Your task to perform on an android device: allow notifications from all sites in the chrome app Image 0: 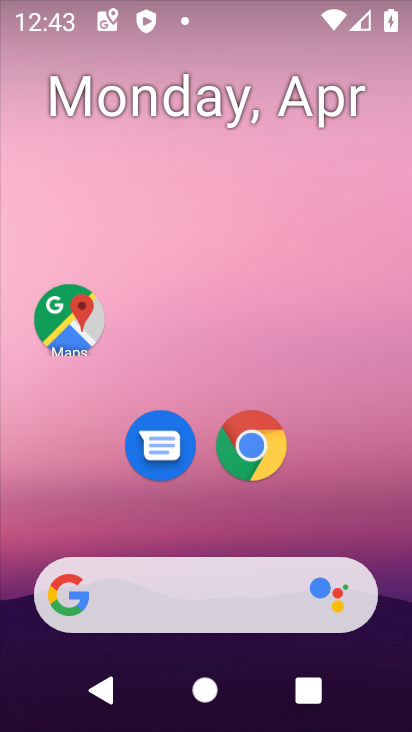
Step 0: drag from (371, 510) to (380, 158)
Your task to perform on an android device: allow notifications from all sites in the chrome app Image 1: 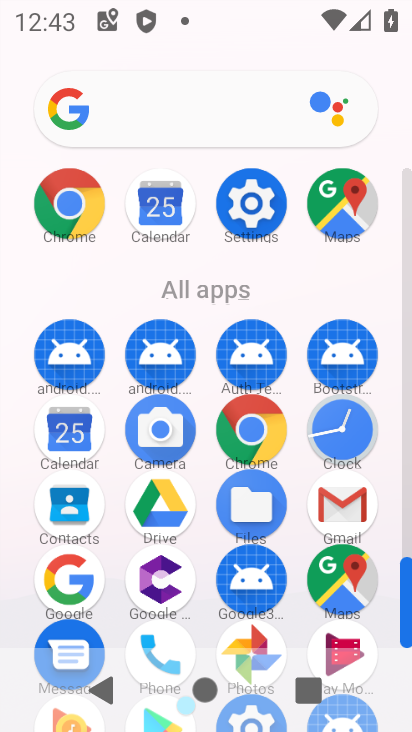
Step 1: click (265, 432)
Your task to perform on an android device: allow notifications from all sites in the chrome app Image 2: 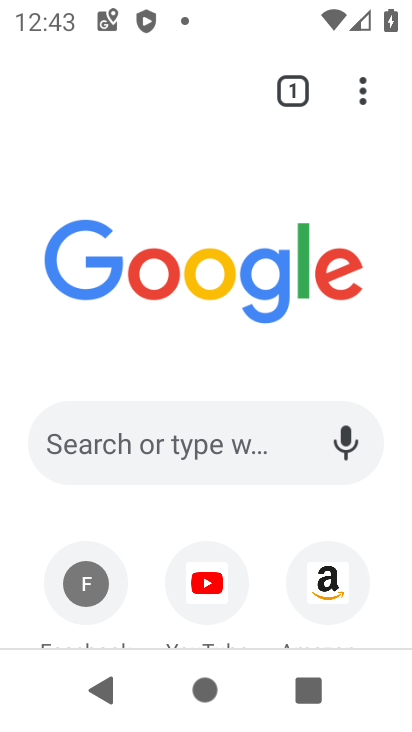
Step 2: click (361, 97)
Your task to perform on an android device: allow notifications from all sites in the chrome app Image 3: 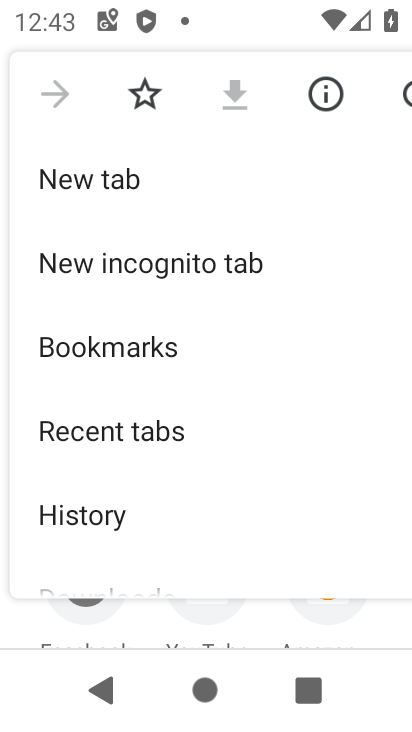
Step 3: drag from (322, 472) to (324, 298)
Your task to perform on an android device: allow notifications from all sites in the chrome app Image 4: 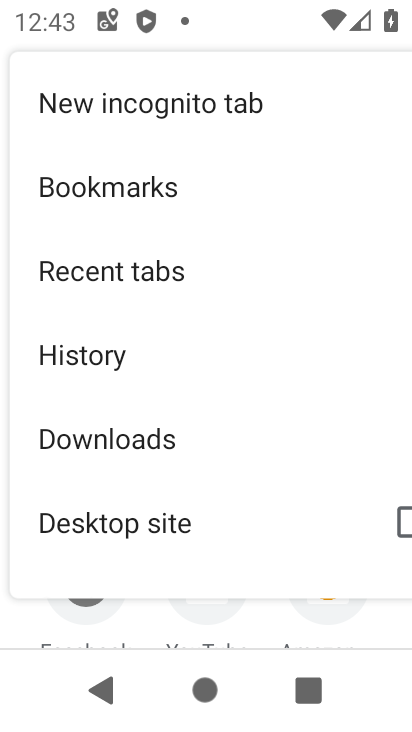
Step 4: drag from (300, 517) to (297, 324)
Your task to perform on an android device: allow notifications from all sites in the chrome app Image 5: 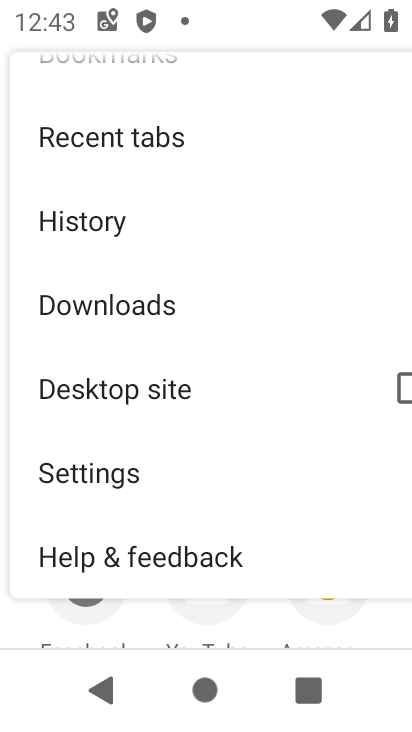
Step 5: drag from (303, 532) to (290, 330)
Your task to perform on an android device: allow notifications from all sites in the chrome app Image 6: 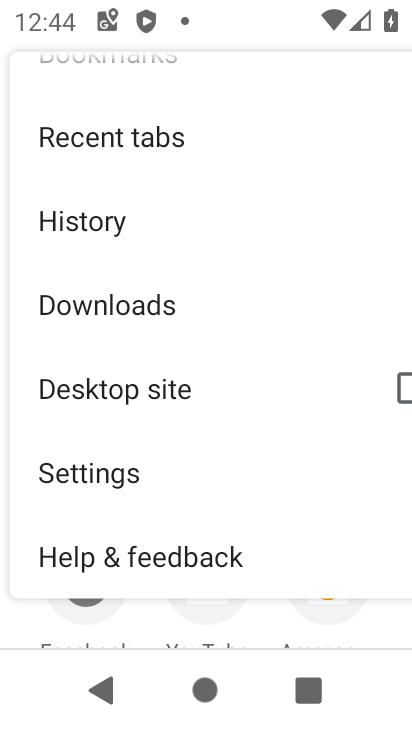
Step 6: click (123, 480)
Your task to perform on an android device: allow notifications from all sites in the chrome app Image 7: 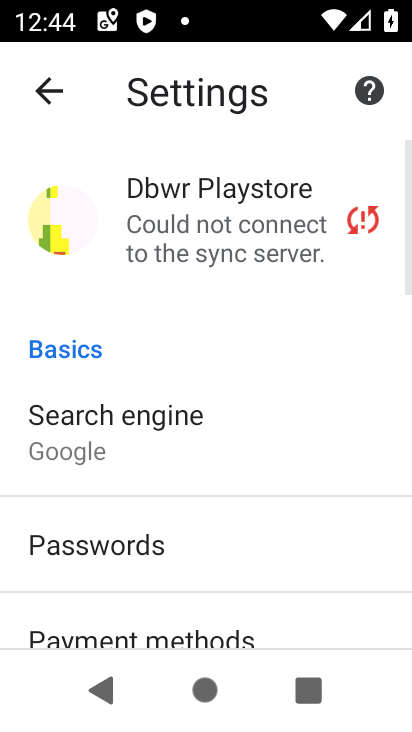
Step 7: drag from (291, 540) to (292, 370)
Your task to perform on an android device: allow notifications from all sites in the chrome app Image 8: 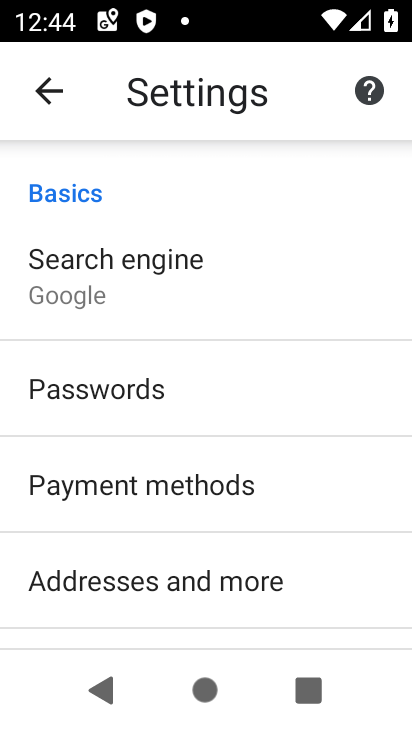
Step 8: drag from (340, 593) to (337, 439)
Your task to perform on an android device: allow notifications from all sites in the chrome app Image 9: 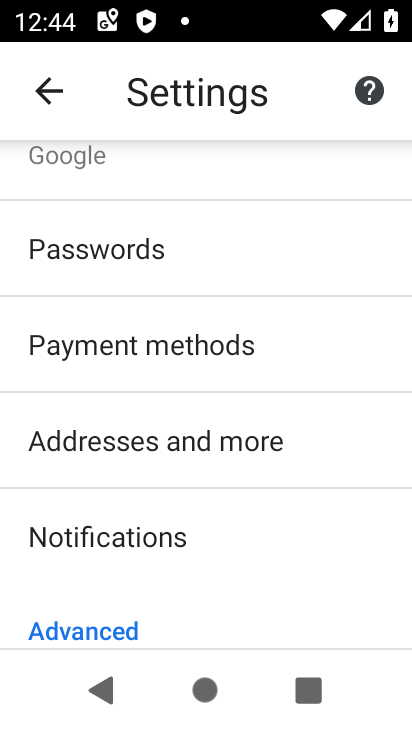
Step 9: drag from (351, 587) to (360, 388)
Your task to perform on an android device: allow notifications from all sites in the chrome app Image 10: 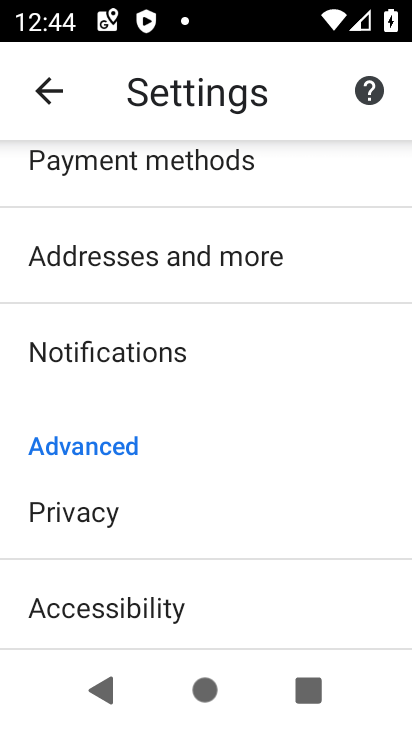
Step 10: drag from (320, 608) to (321, 405)
Your task to perform on an android device: allow notifications from all sites in the chrome app Image 11: 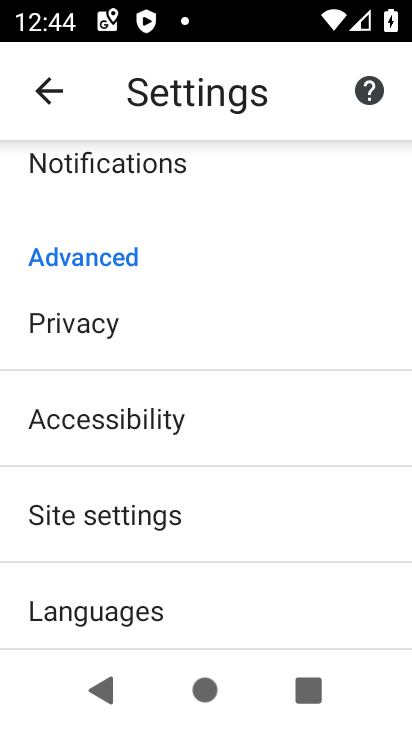
Step 11: drag from (316, 607) to (303, 454)
Your task to perform on an android device: allow notifications from all sites in the chrome app Image 12: 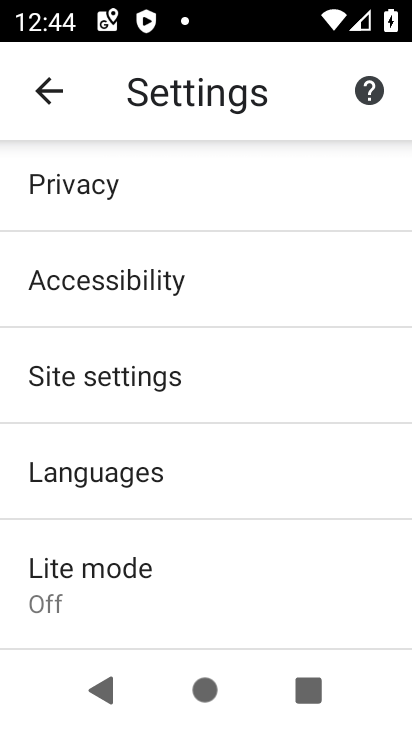
Step 12: click (285, 379)
Your task to perform on an android device: allow notifications from all sites in the chrome app Image 13: 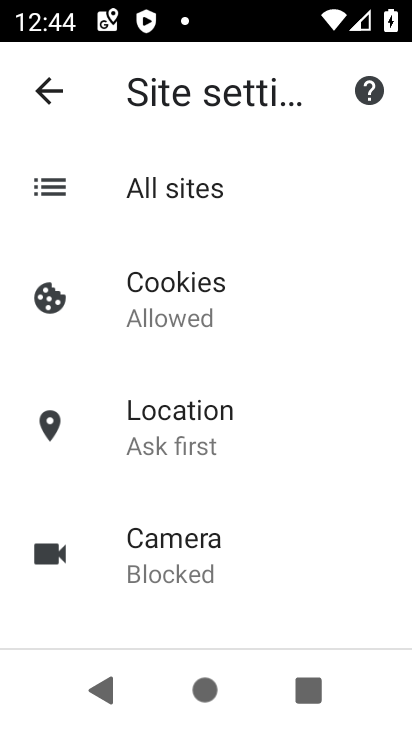
Step 13: drag from (329, 563) to (324, 451)
Your task to perform on an android device: allow notifications from all sites in the chrome app Image 14: 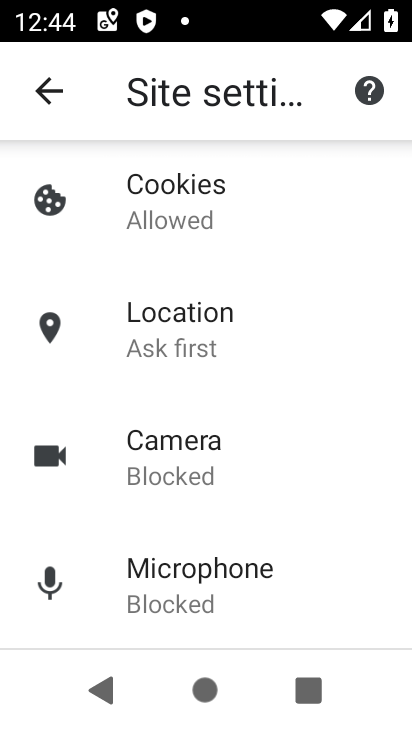
Step 14: drag from (332, 611) to (334, 394)
Your task to perform on an android device: allow notifications from all sites in the chrome app Image 15: 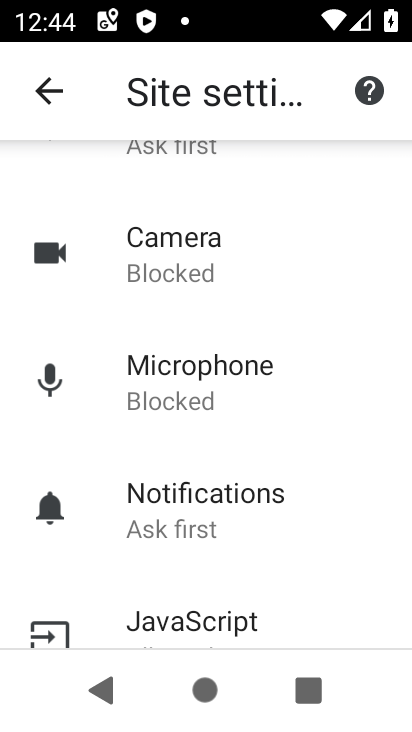
Step 15: drag from (337, 583) to (341, 413)
Your task to perform on an android device: allow notifications from all sites in the chrome app Image 16: 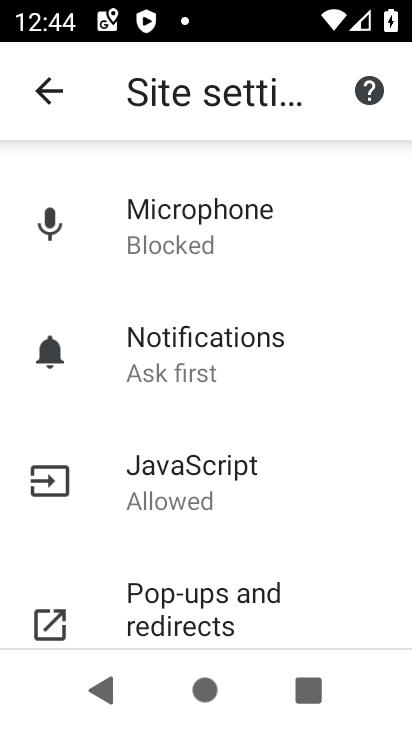
Step 16: click (250, 359)
Your task to perform on an android device: allow notifications from all sites in the chrome app Image 17: 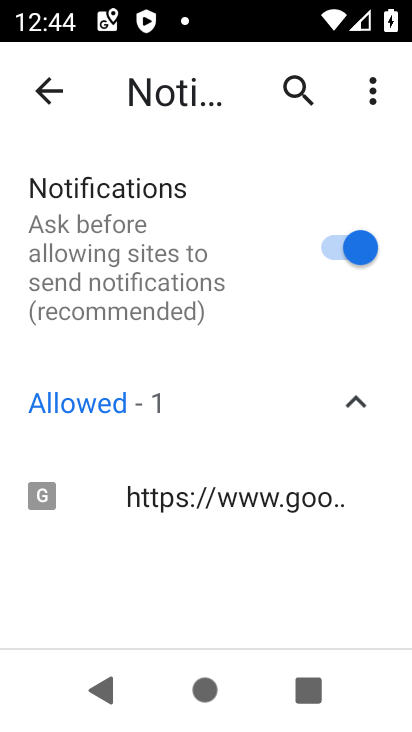
Step 17: task complete